Your task to perform on an android device: Open the phone app and click the voicemail tab. Image 0: 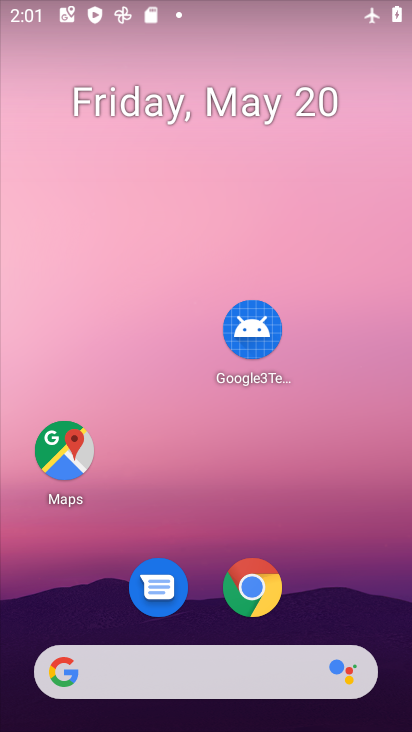
Step 0: drag from (360, 534) to (261, 56)
Your task to perform on an android device: Open the phone app and click the voicemail tab. Image 1: 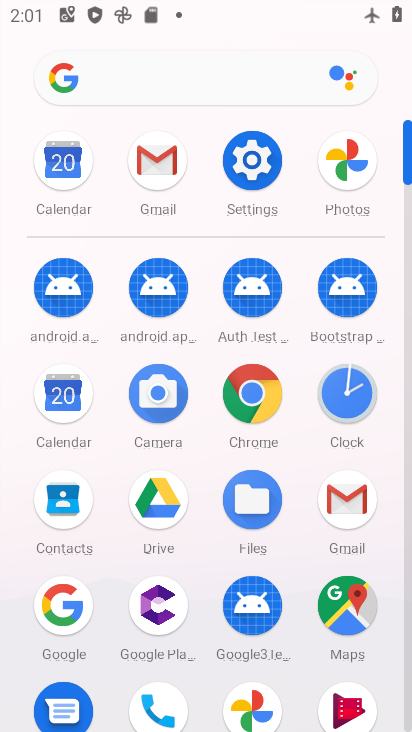
Step 1: drag from (293, 628) to (270, 204)
Your task to perform on an android device: Open the phone app and click the voicemail tab. Image 2: 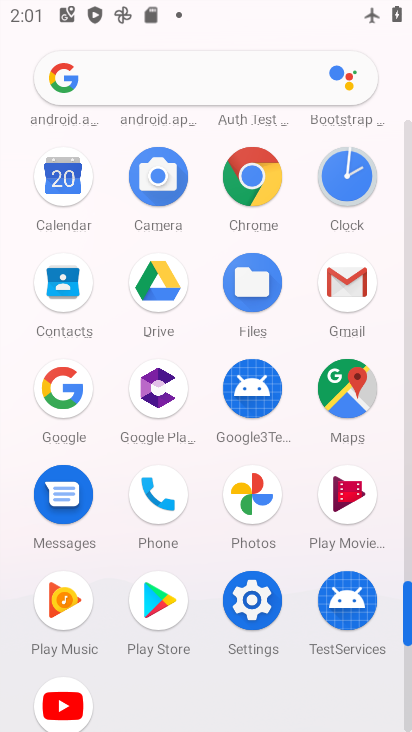
Step 2: click (152, 493)
Your task to perform on an android device: Open the phone app and click the voicemail tab. Image 3: 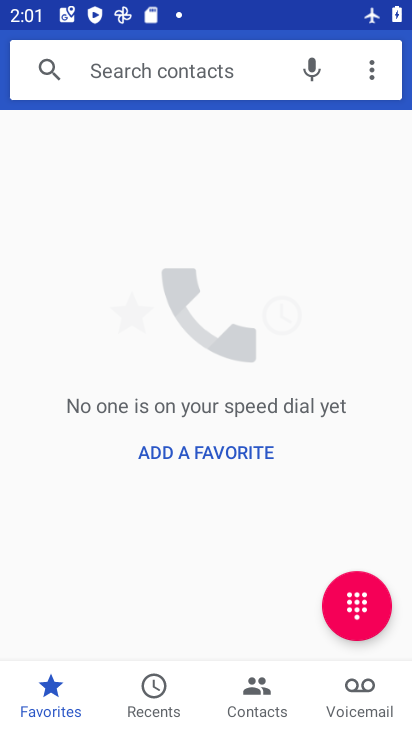
Step 3: click (355, 676)
Your task to perform on an android device: Open the phone app and click the voicemail tab. Image 4: 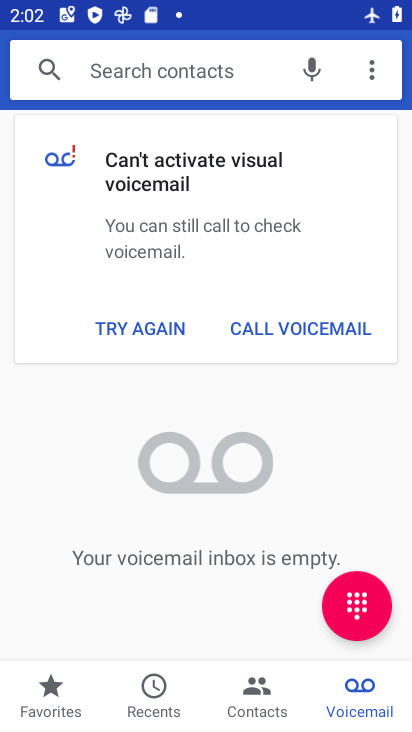
Step 4: task complete